Your task to perform on an android device: check google app version Image 0: 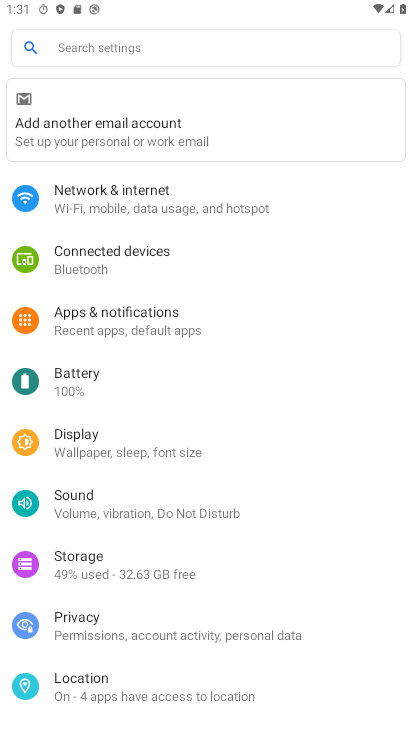
Step 0: press home button
Your task to perform on an android device: check google app version Image 1: 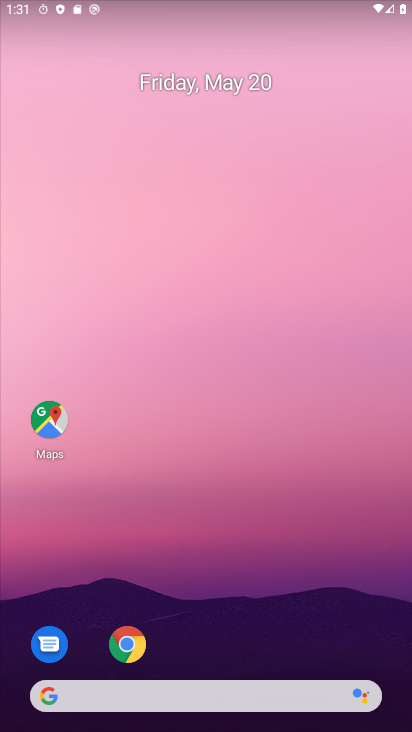
Step 1: click (137, 694)
Your task to perform on an android device: check google app version Image 2: 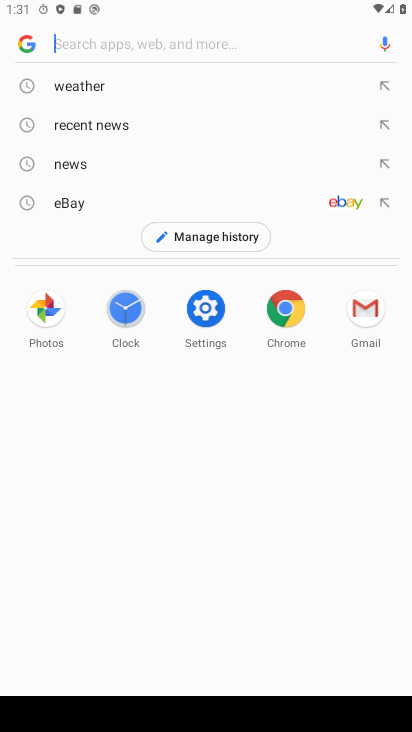
Step 2: click (20, 39)
Your task to perform on an android device: check google app version Image 3: 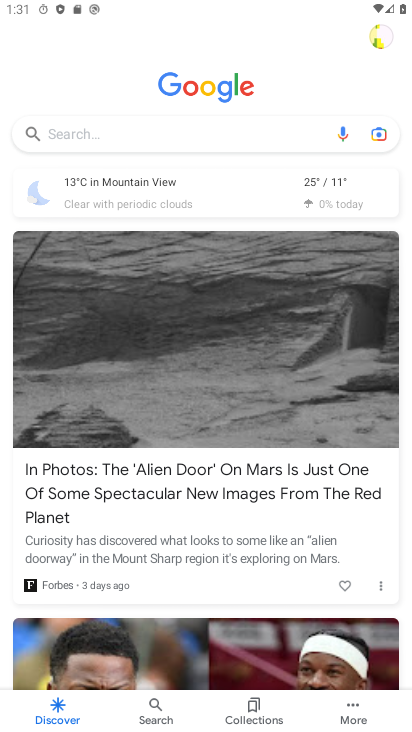
Step 3: click (355, 720)
Your task to perform on an android device: check google app version Image 4: 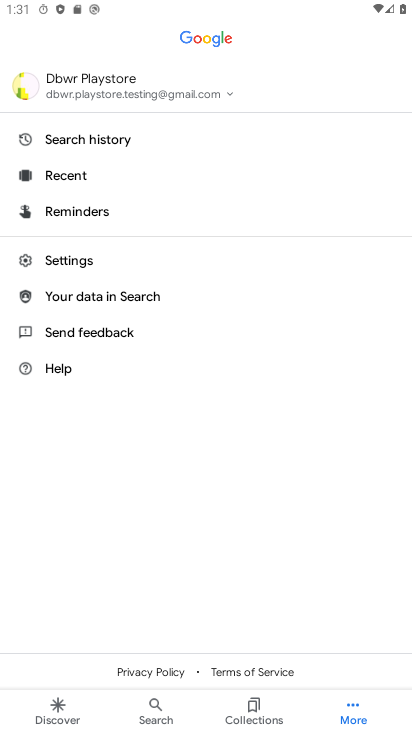
Step 4: click (79, 265)
Your task to perform on an android device: check google app version Image 5: 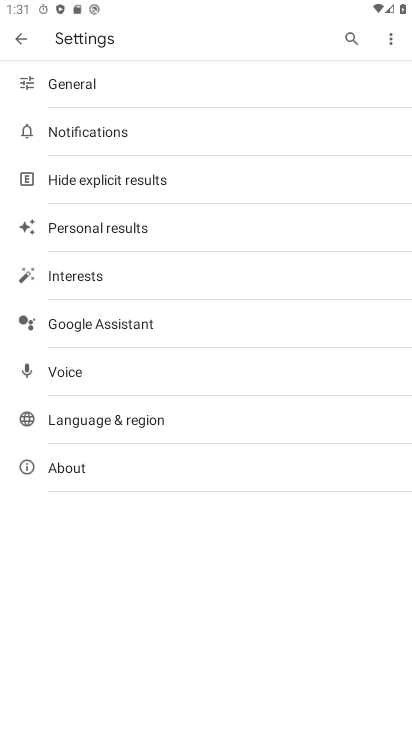
Step 5: click (67, 464)
Your task to perform on an android device: check google app version Image 6: 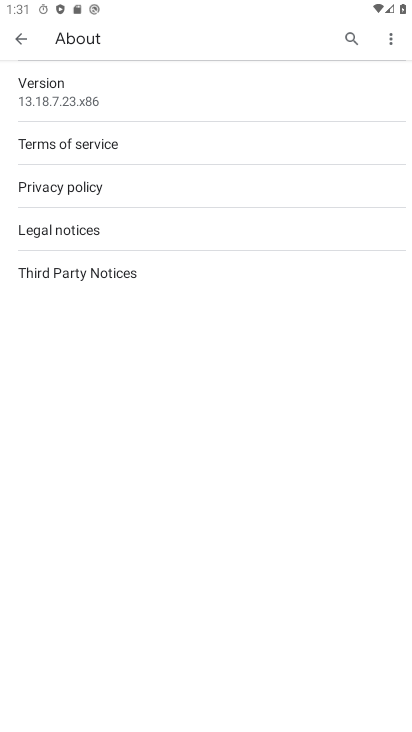
Step 6: task complete